Your task to perform on an android device: toggle show notifications on the lock screen Image 0: 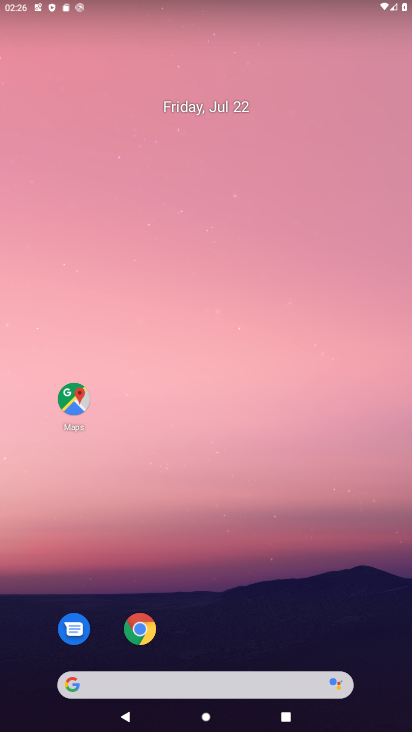
Step 0: drag from (7, 665) to (263, 56)
Your task to perform on an android device: toggle show notifications on the lock screen Image 1: 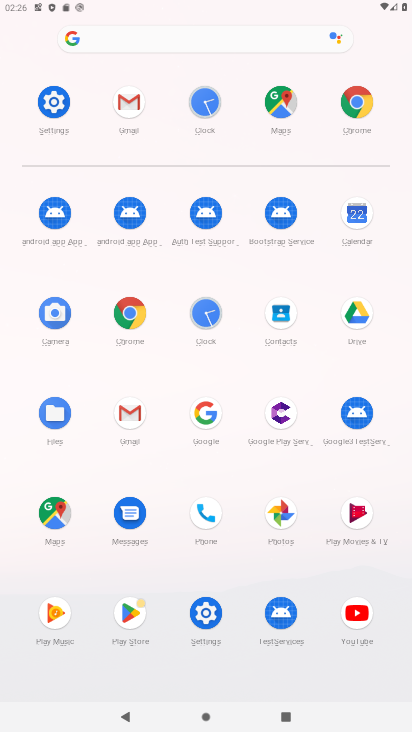
Step 1: click (54, 108)
Your task to perform on an android device: toggle show notifications on the lock screen Image 2: 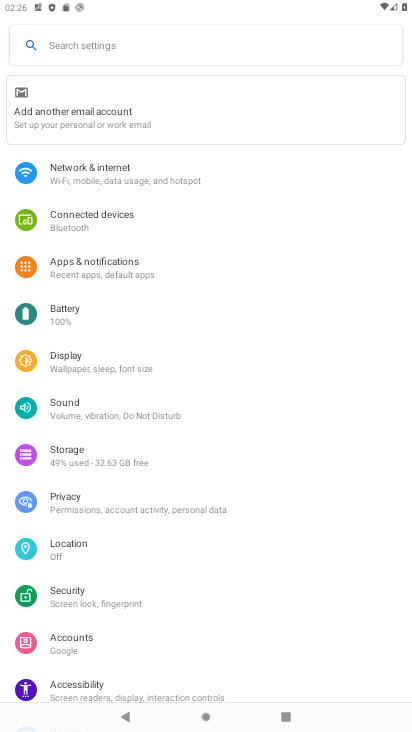
Step 2: click (154, 268)
Your task to perform on an android device: toggle show notifications on the lock screen Image 3: 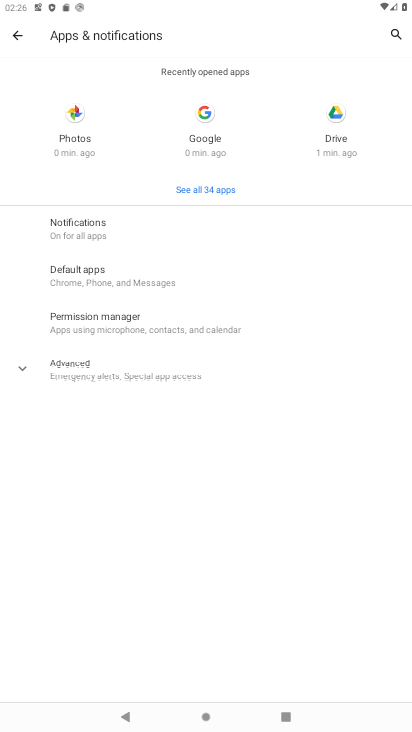
Step 3: click (110, 234)
Your task to perform on an android device: toggle show notifications on the lock screen Image 4: 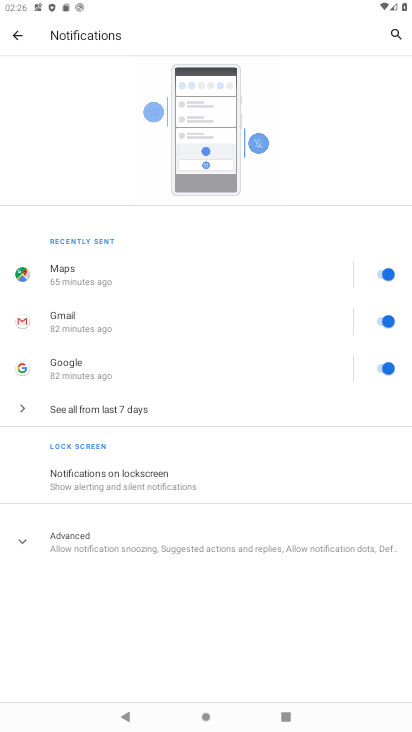
Step 4: click (165, 474)
Your task to perform on an android device: toggle show notifications on the lock screen Image 5: 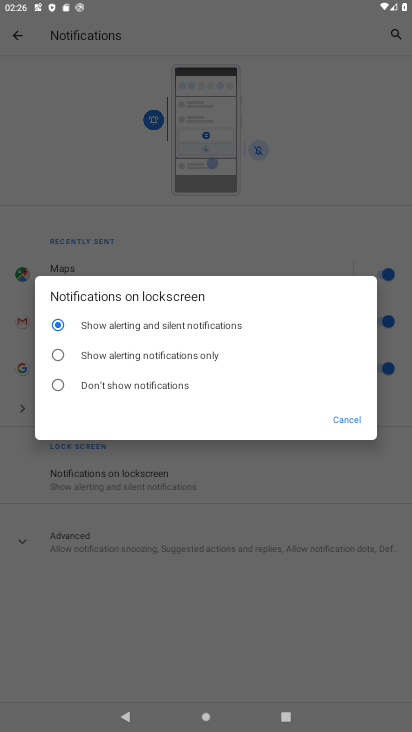
Step 5: click (111, 384)
Your task to perform on an android device: toggle show notifications on the lock screen Image 6: 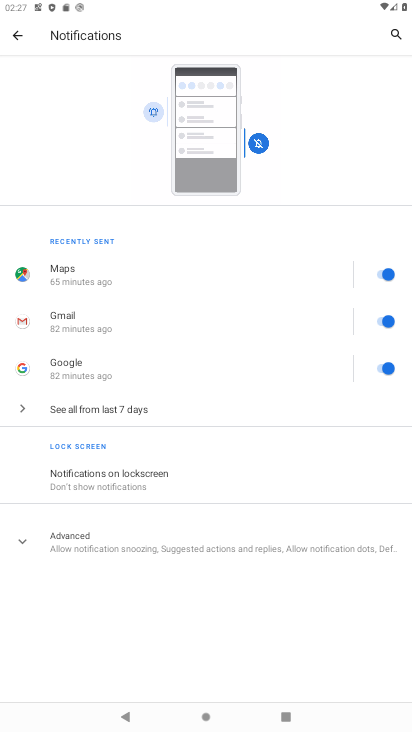
Step 6: click (156, 488)
Your task to perform on an android device: toggle show notifications on the lock screen Image 7: 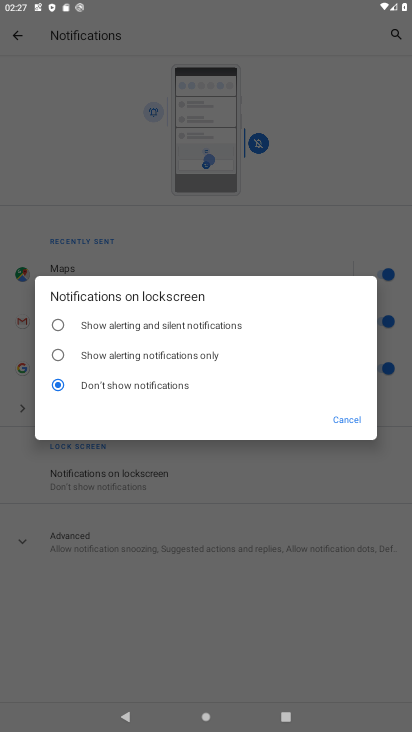
Step 7: task complete